Your task to perform on an android device: Open my contact list Image 0: 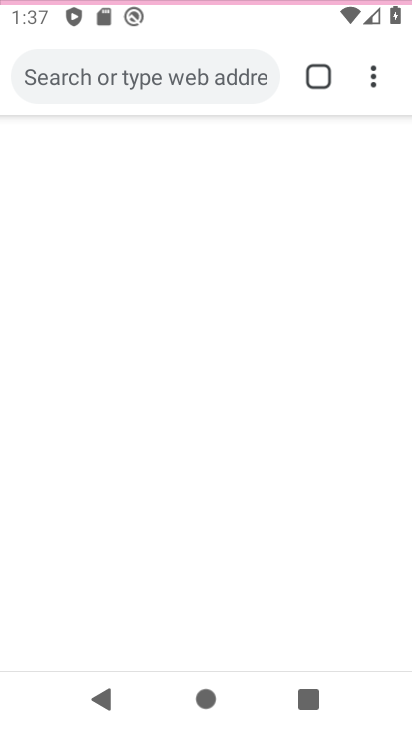
Step 0: drag from (266, 676) to (257, 100)
Your task to perform on an android device: Open my contact list Image 1: 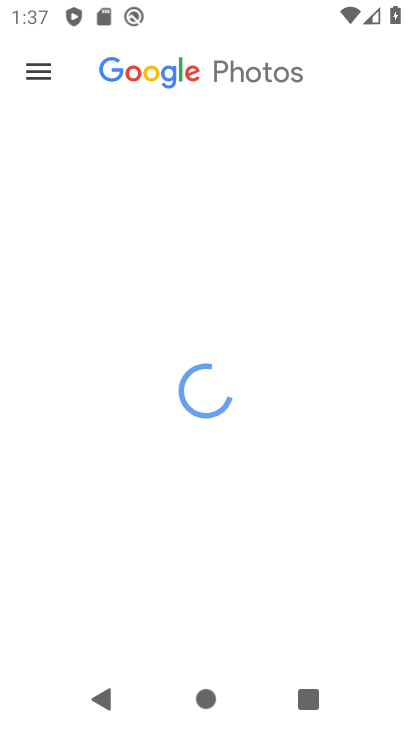
Step 1: press home button
Your task to perform on an android device: Open my contact list Image 2: 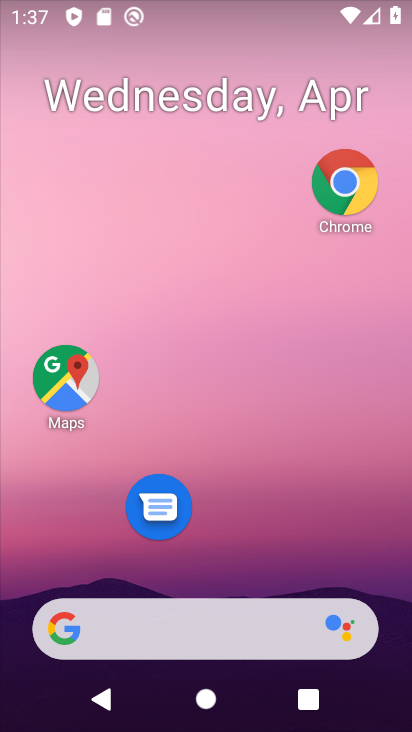
Step 2: click (202, 695)
Your task to perform on an android device: Open my contact list Image 3: 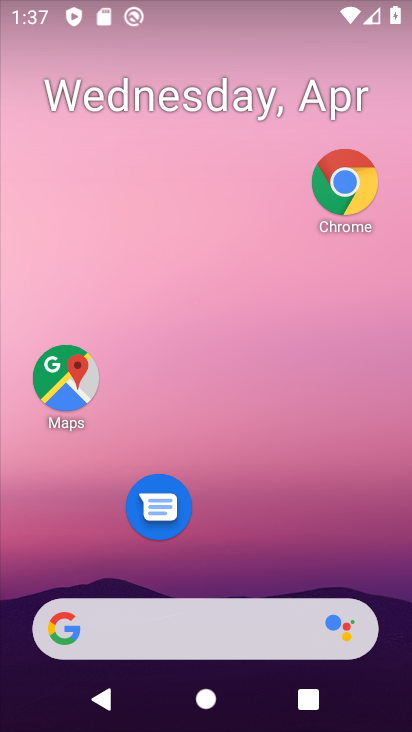
Step 3: drag from (260, 709) to (200, 44)
Your task to perform on an android device: Open my contact list Image 4: 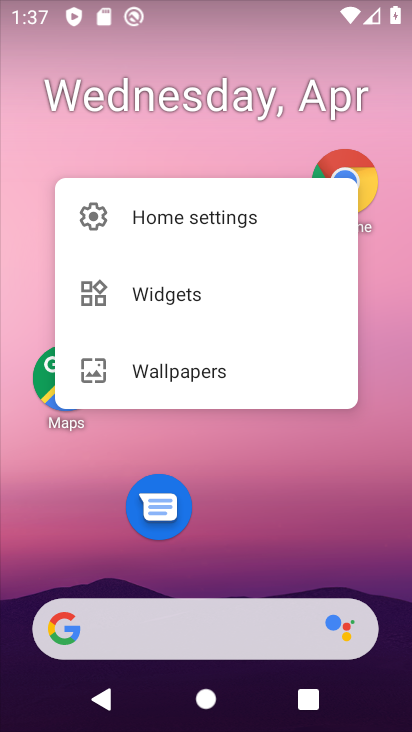
Step 4: drag from (266, 692) to (328, 316)
Your task to perform on an android device: Open my contact list Image 5: 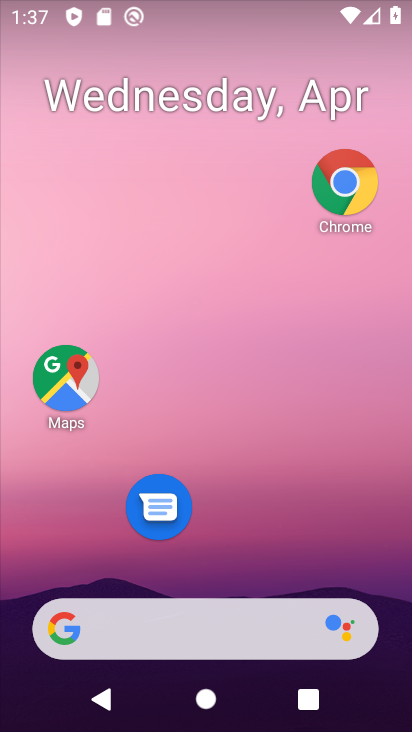
Step 5: drag from (155, 438) to (171, 111)
Your task to perform on an android device: Open my contact list Image 6: 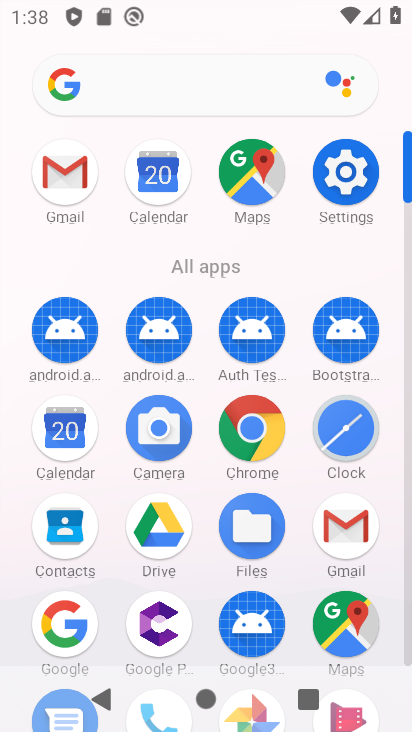
Step 6: click (73, 530)
Your task to perform on an android device: Open my contact list Image 7: 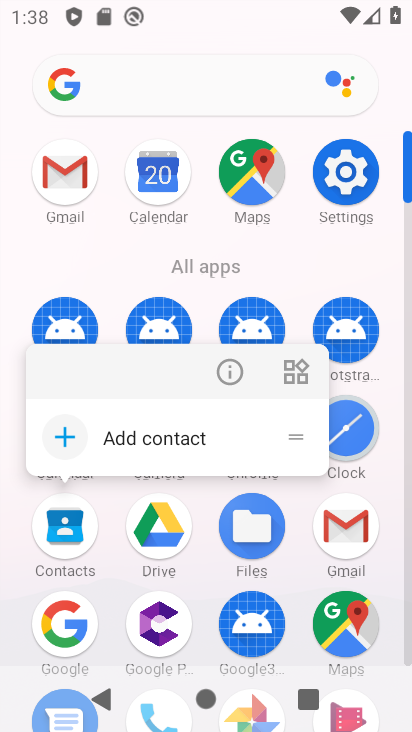
Step 7: click (70, 538)
Your task to perform on an android device: Open my contact list Image 8: 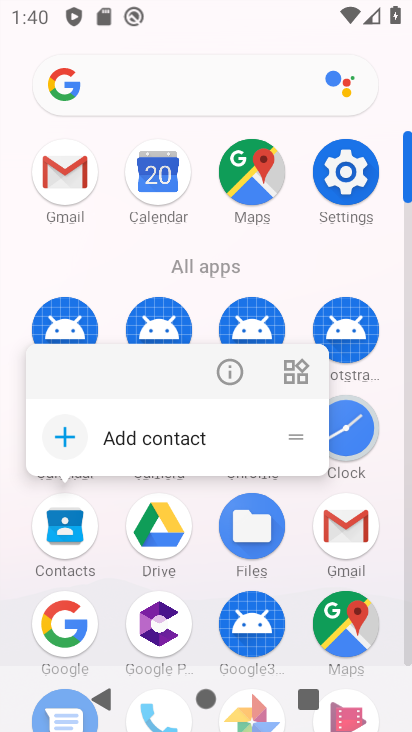
Step 8: click (71, 522)
Your task to perform on an android device: Open my contact list Image 9: 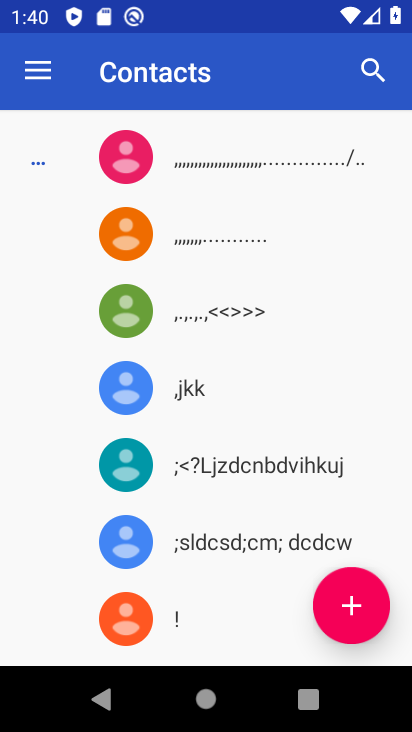
Step 9: task complete